Your task to perform on an android device: open device folders in google photos Image 0: 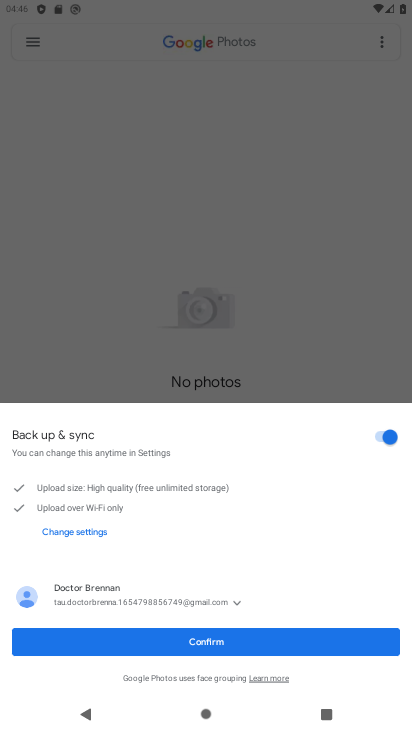
Step 0: press home button
Your task to perform on an android device: open device folders in google photos Image 1: 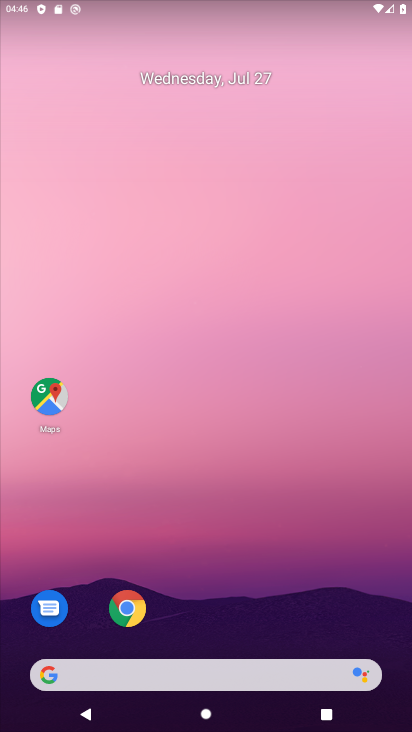
Step 1: drag from (262, 613) to (299, 254)
Your task to perform on an android device: open device folders in google photos Image 2: 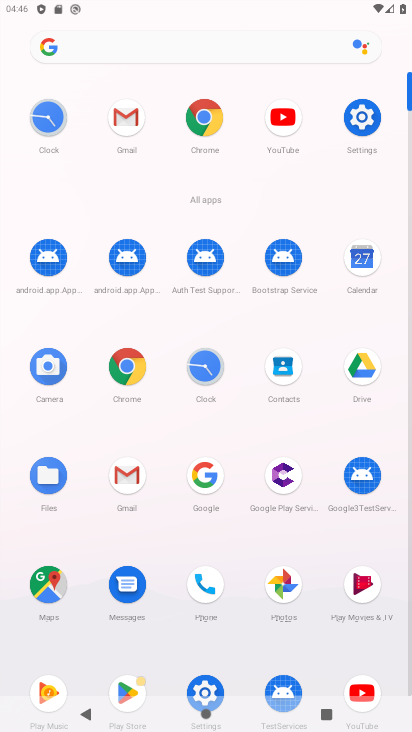
Step 2: click (289, 588)
Your task to perform on an android device: open device folders in google photos Image 3: 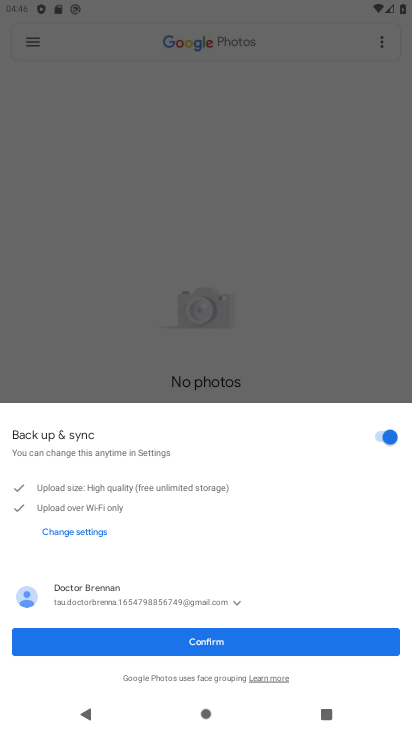
Step 3: click (251, 642)
Your task to perform on an android device: open device folders in google photos Image 4: 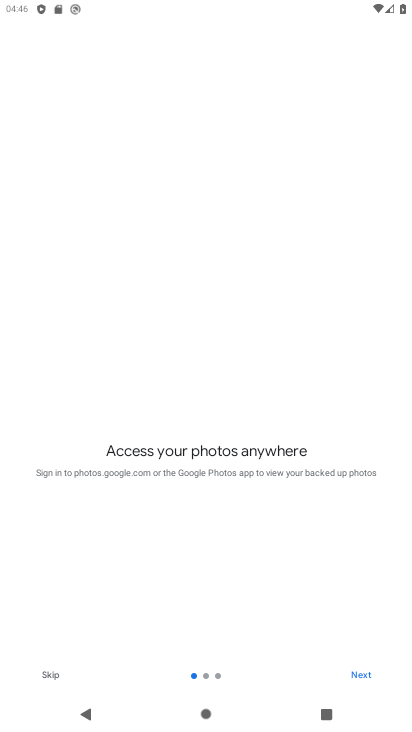
Step 4: click (51, 676)
Your task to perform on an android device: open device folders in google photos Image 5: 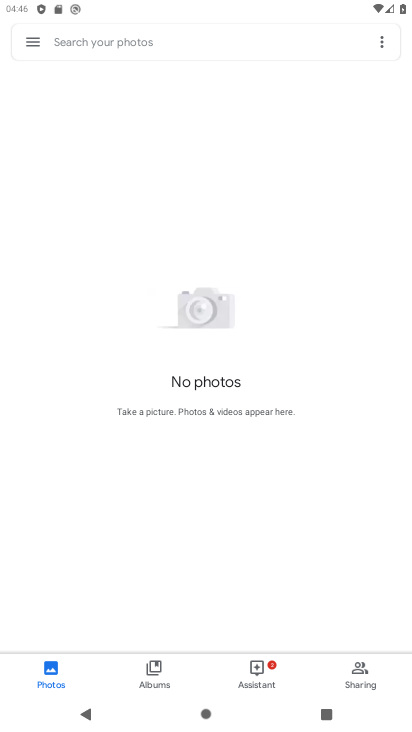
Step 5: click (29, 40)
Your task to perform on an android device: open device folders in google photos Image 6: 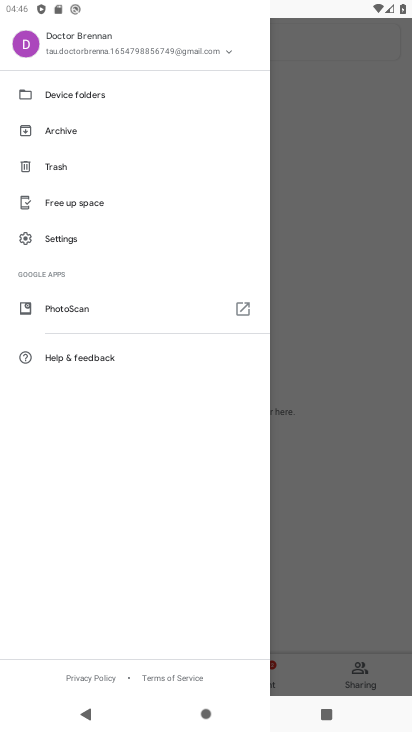
Step 6: click (65, 96)
Your task to perform on an android device: open device folders in google photos Image 7: 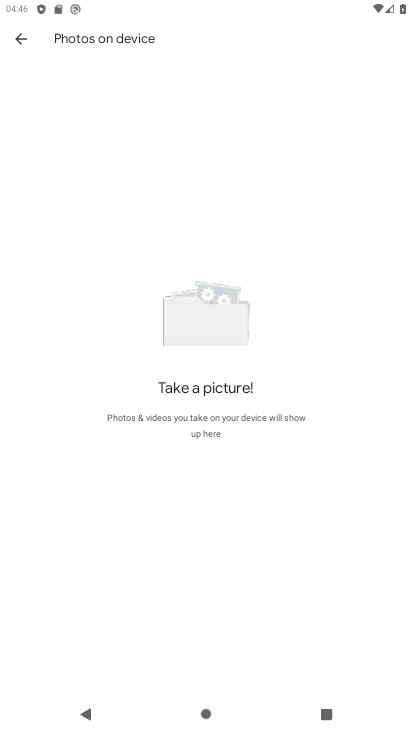
Step 7: task complete